Your task to perform on an android device: open app "TextNow: Call + Text Unlimited" (install if not already installed) Image 0: 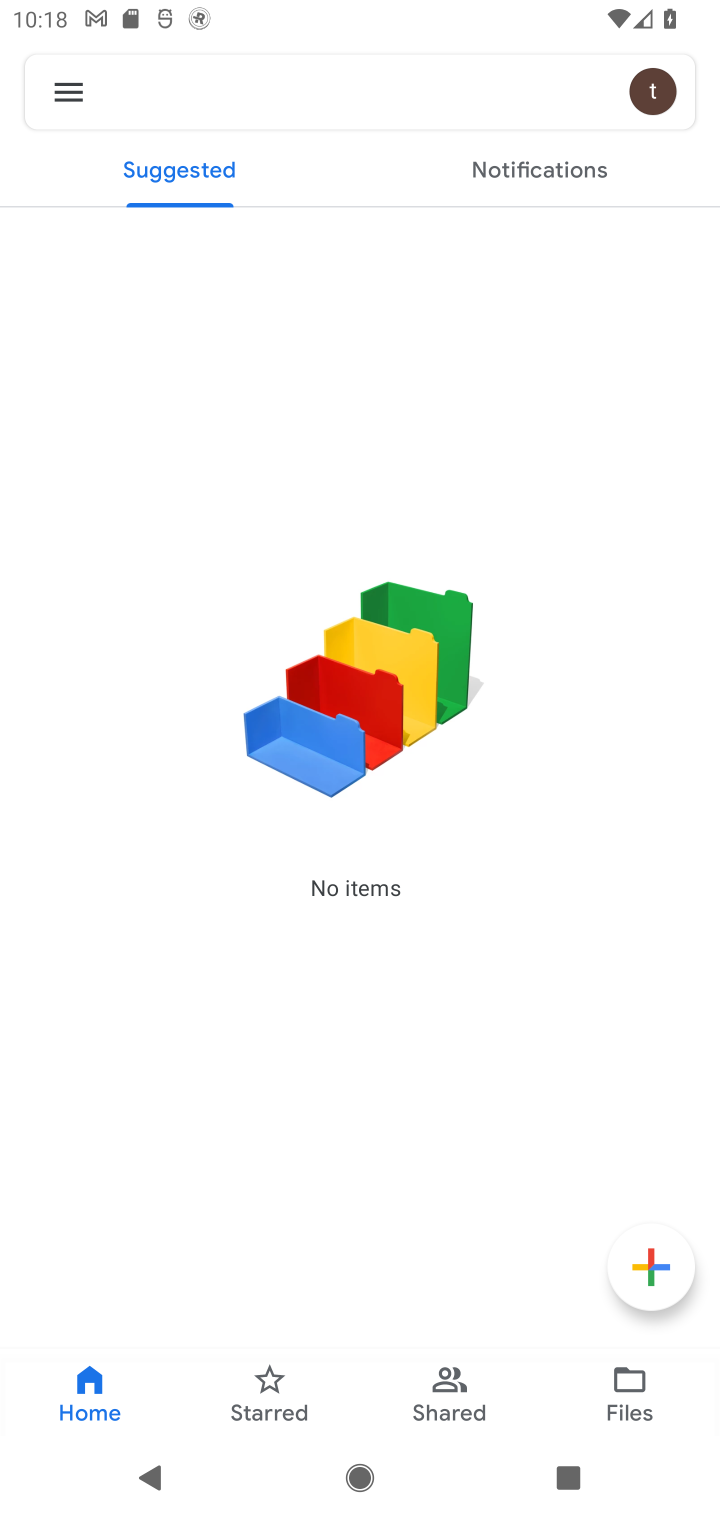
Step 0: press home button
Your task to perform on an android device: open app "TextNow: Call + Text Unlimited" (install if not already installed) Image 1: 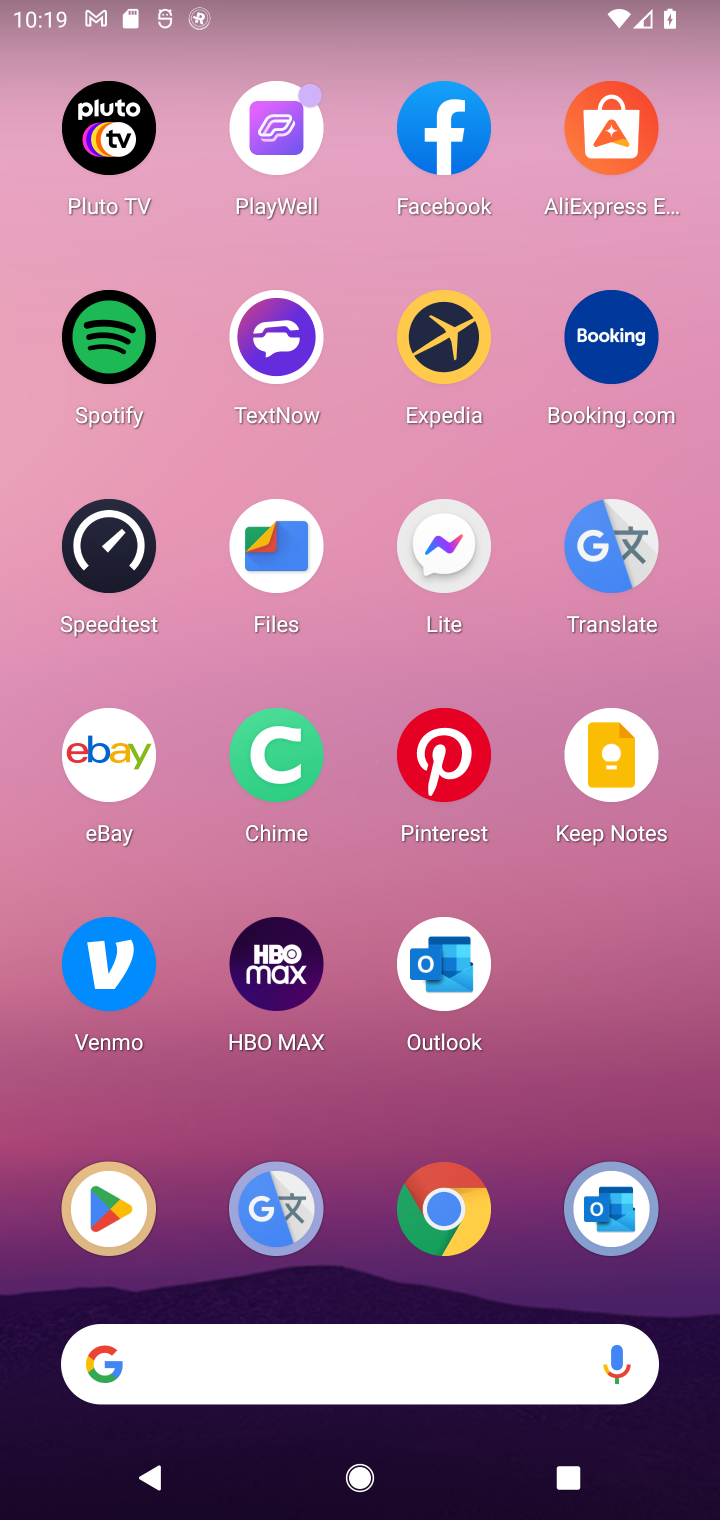
Step 1: press home button
Your task to perform on an android device: open app "TextNow: Call + Text Unlimited" (install if not already installed) Image 2: 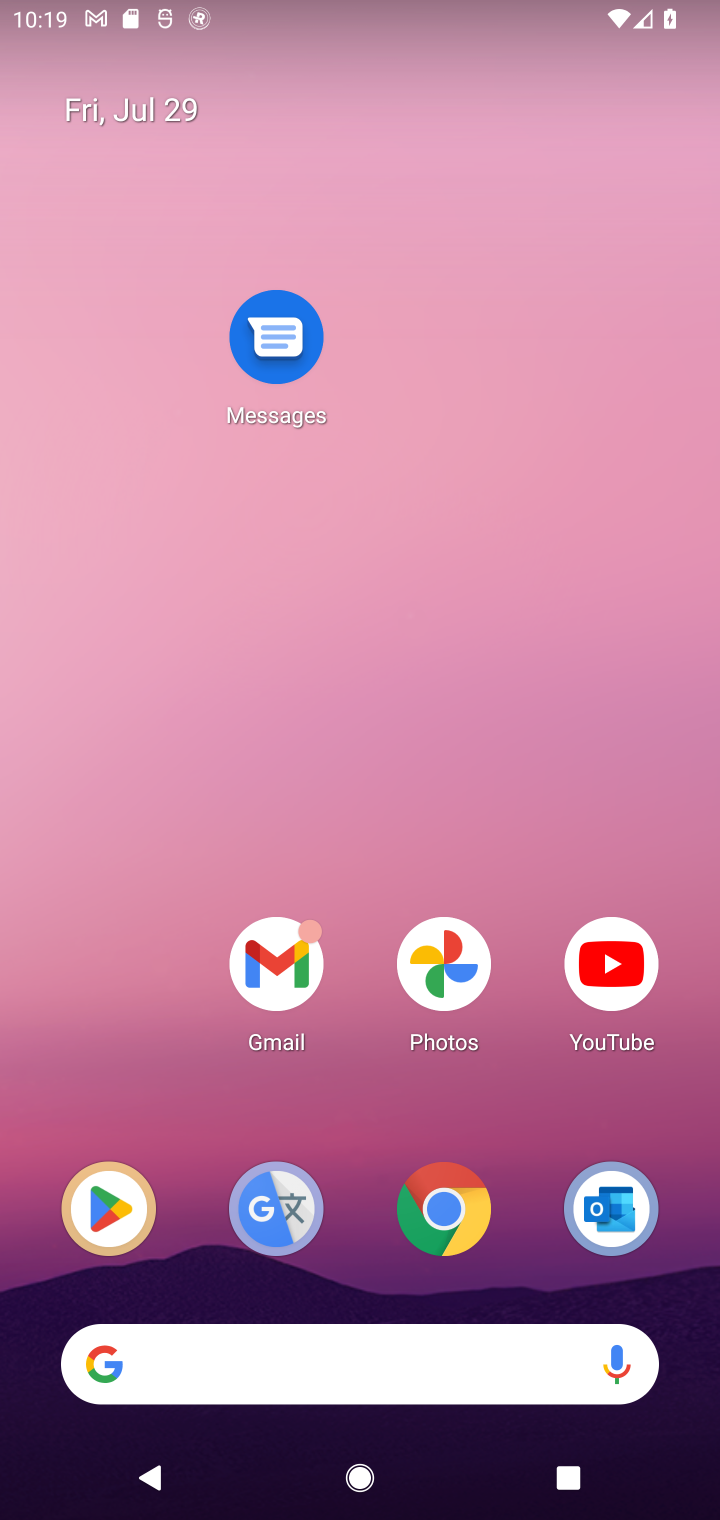
Step 2: drag from (326, 1384) to (585, 330)
Your task to perform on an android device: open app "TextNow: Call + Text Unlimited" (install if not already installed) Image 3: 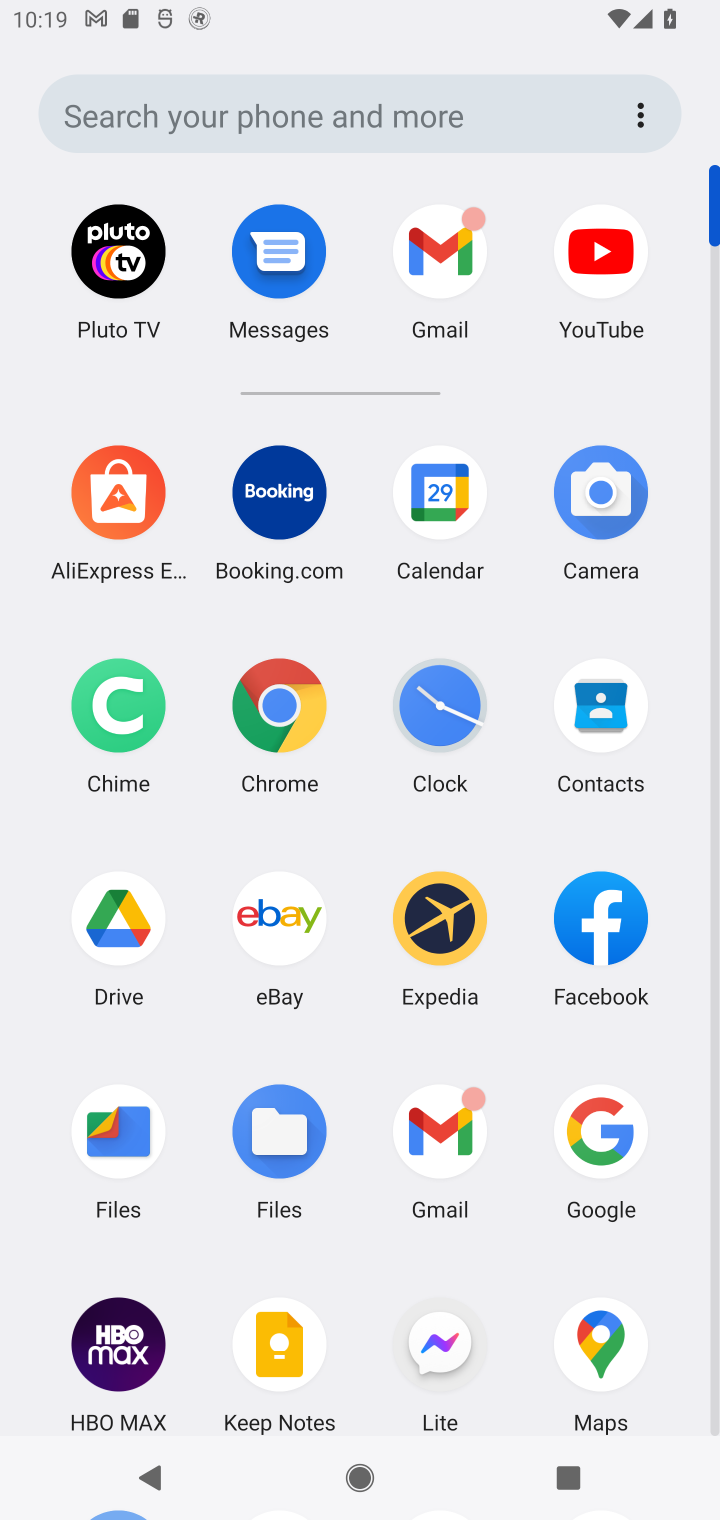
Step 3: drag from (327, 1158) to (382, 730)
Your task to perform on an android device: open app "TextNow: Call + Text Unlimited" (install if not already installed) Image 4: 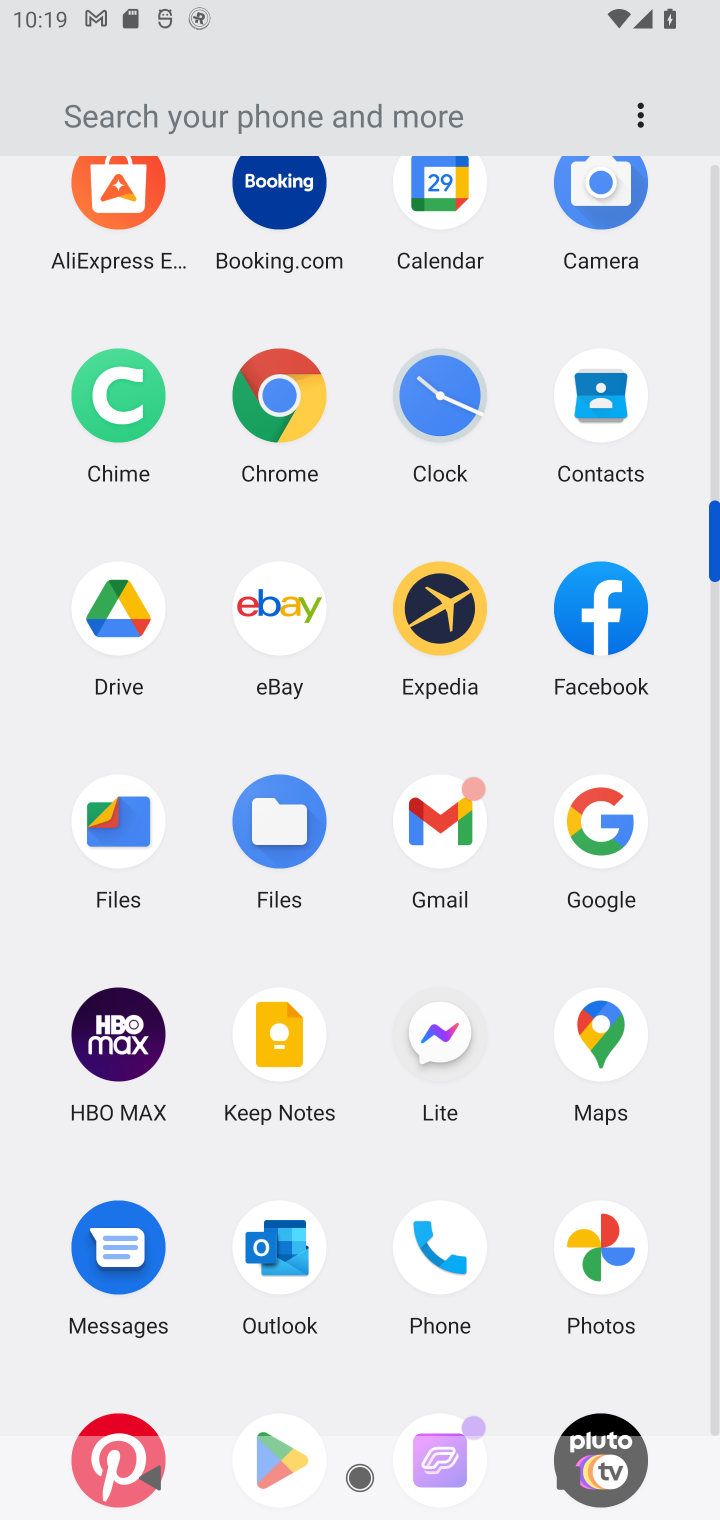
Step 4: drag from (504, 1244) to (541, 668)
Your task to perform on an android device: open app "TextNow: Call + Text Unlimited" (install if not already installed) Image 5: 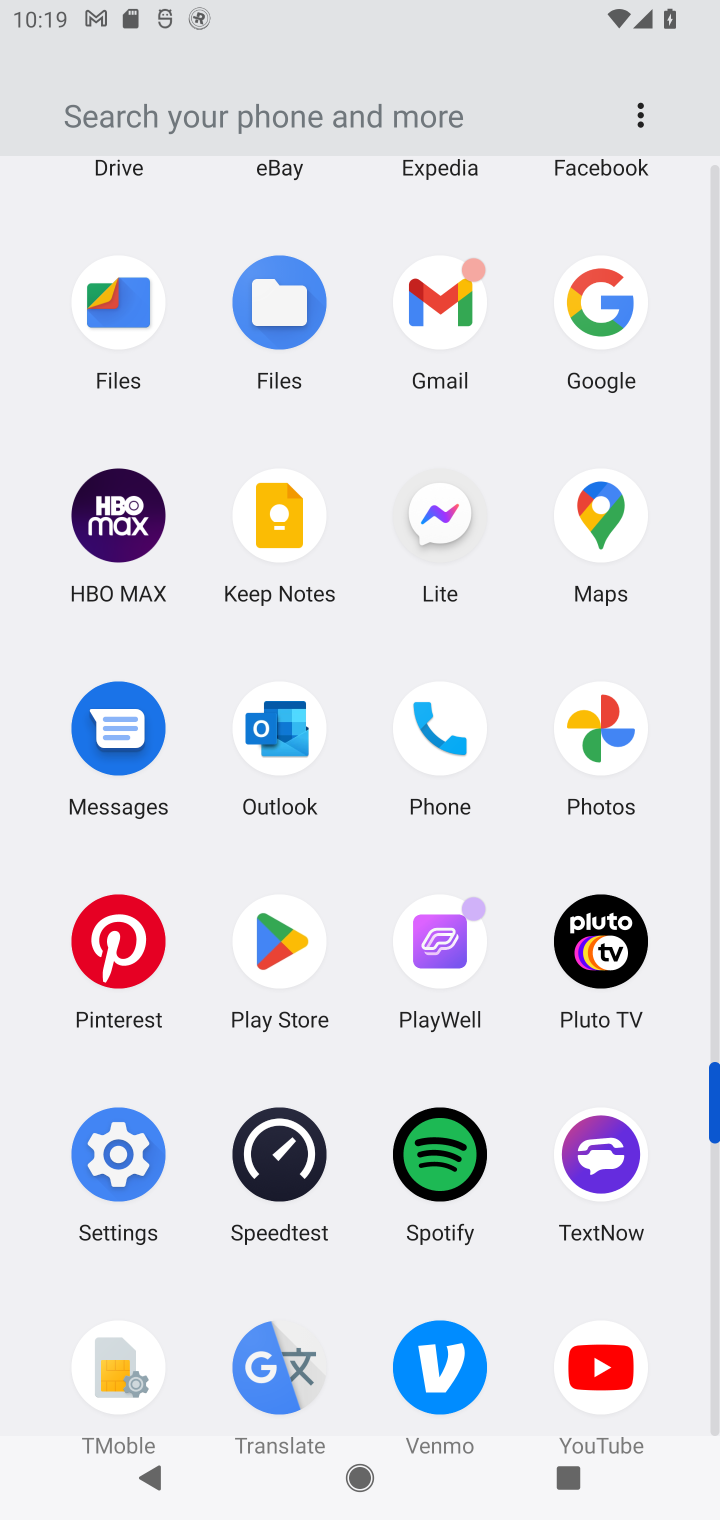
Step 5: click (284, 940)
Your task to perform on an android device: open app "TextNow: Call + Text Unlimited" (install if not already installed) Image 6: 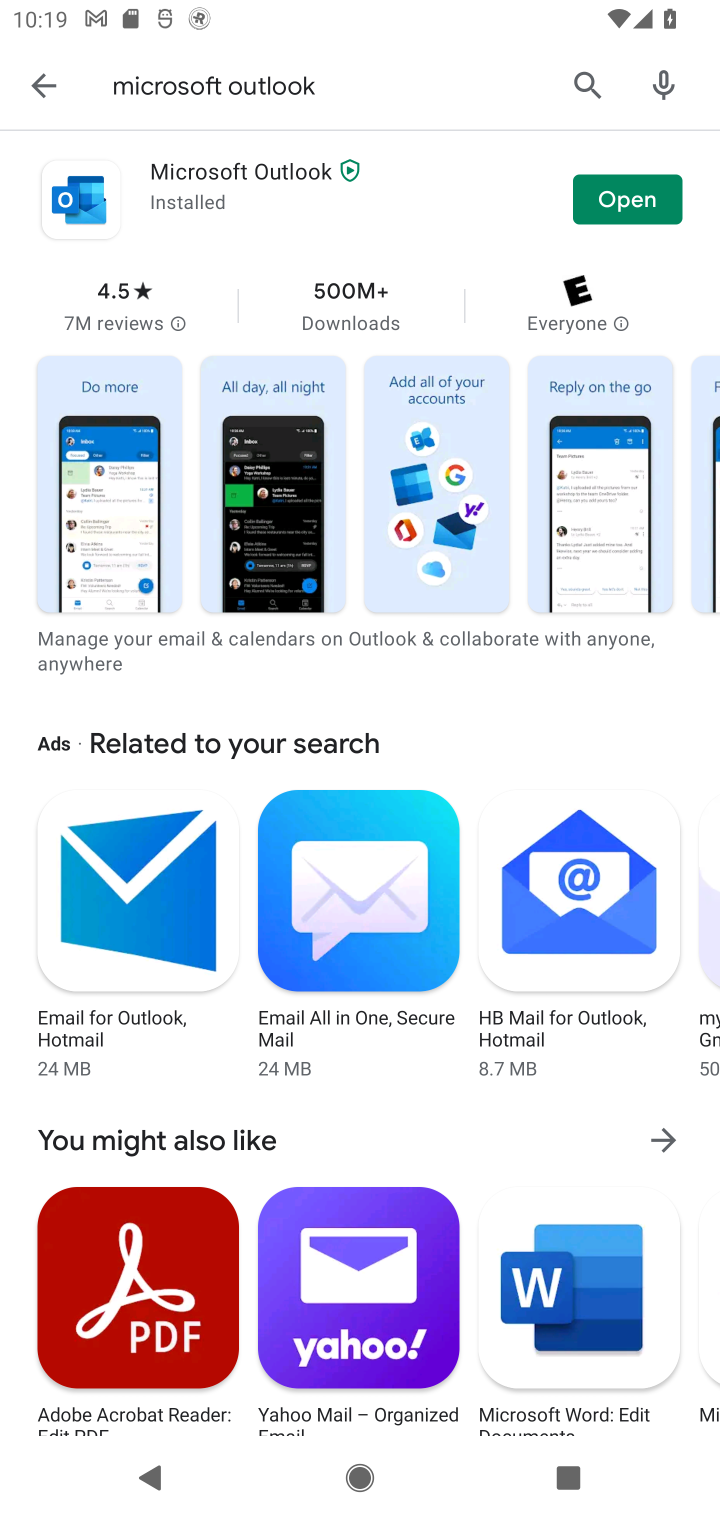
Step 6: click (506, 99)
Your task to perform on an android device: open app "TextNow: Call + Text Unlimited" (install if not already installed) Image 7: 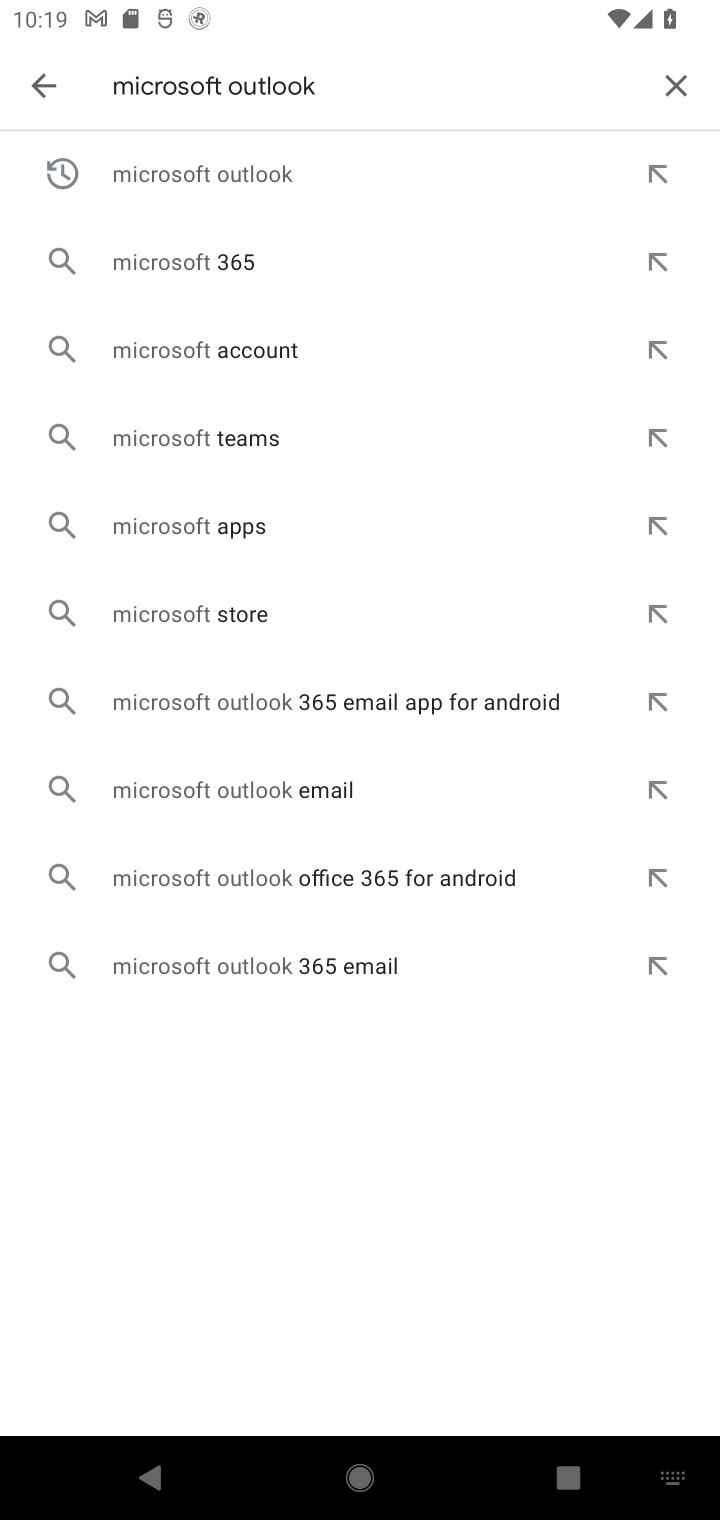
Step 7: click (674, 91)
Your task to perform on an android device: open app "TextNow: Call + Text Unlimited" (install if not already installed) Image 8: 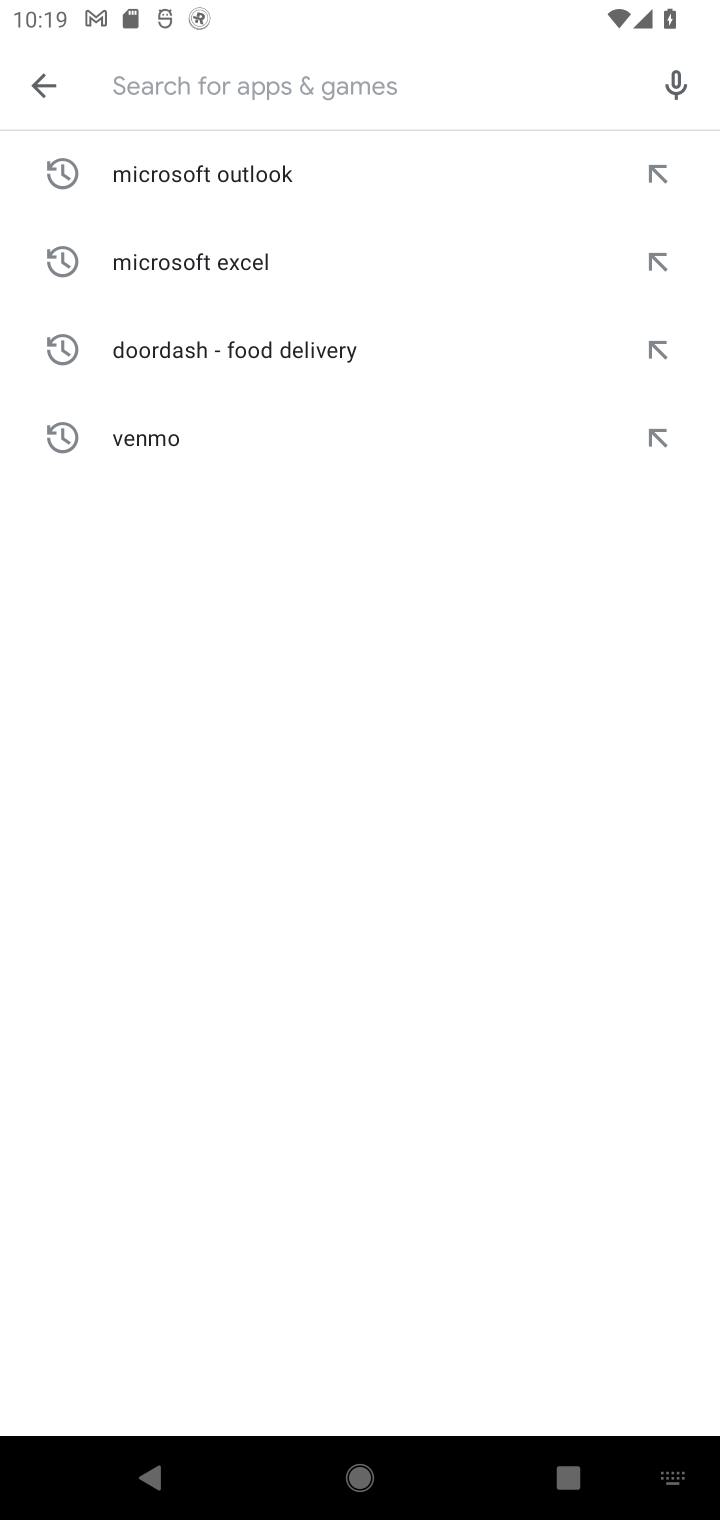
Step 8: click (335, 94)
Your task to perform on an android device: open app "TextNow: Call + Text Unlimited" (install if not already installed) Image 9: 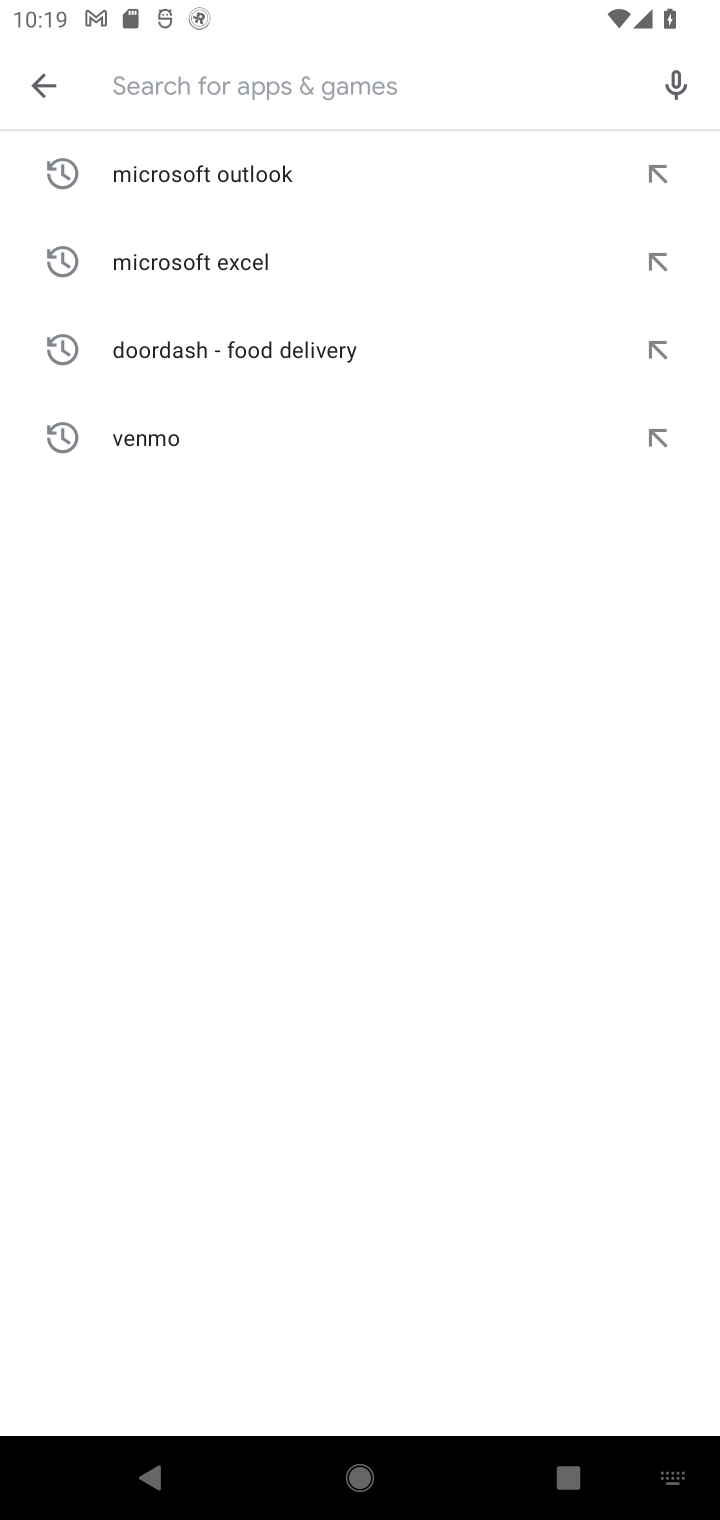
Step 9: type "TextNow: Call + Text Unlimited"
Your task to perform on an android device: open app "TextNow: Call + Text Unlimited" (install if not already installed) Image 10: 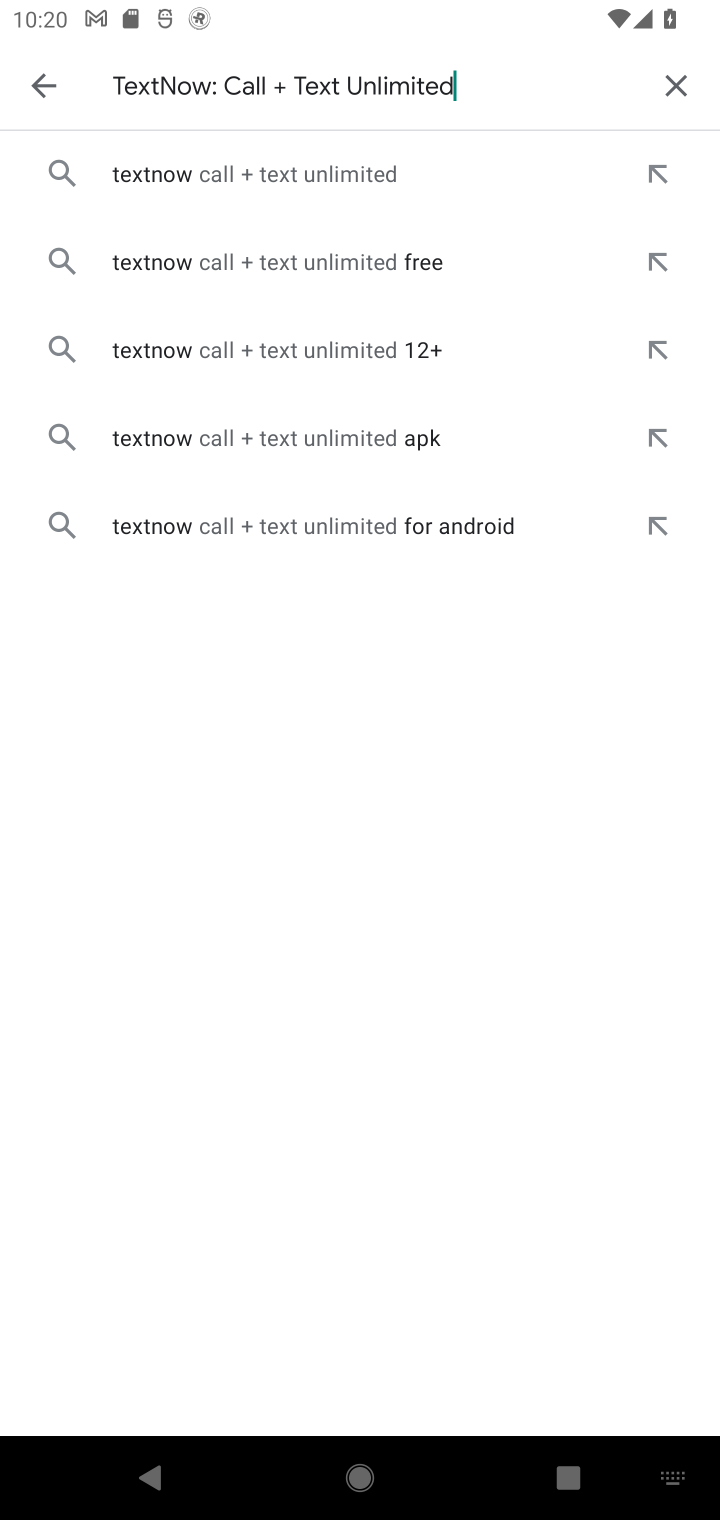
Step 10: click (314, 177)
Your task to perform on an android device: open app "TextNow: Call + Text Unlimited" (install if not already installed) Image 11: 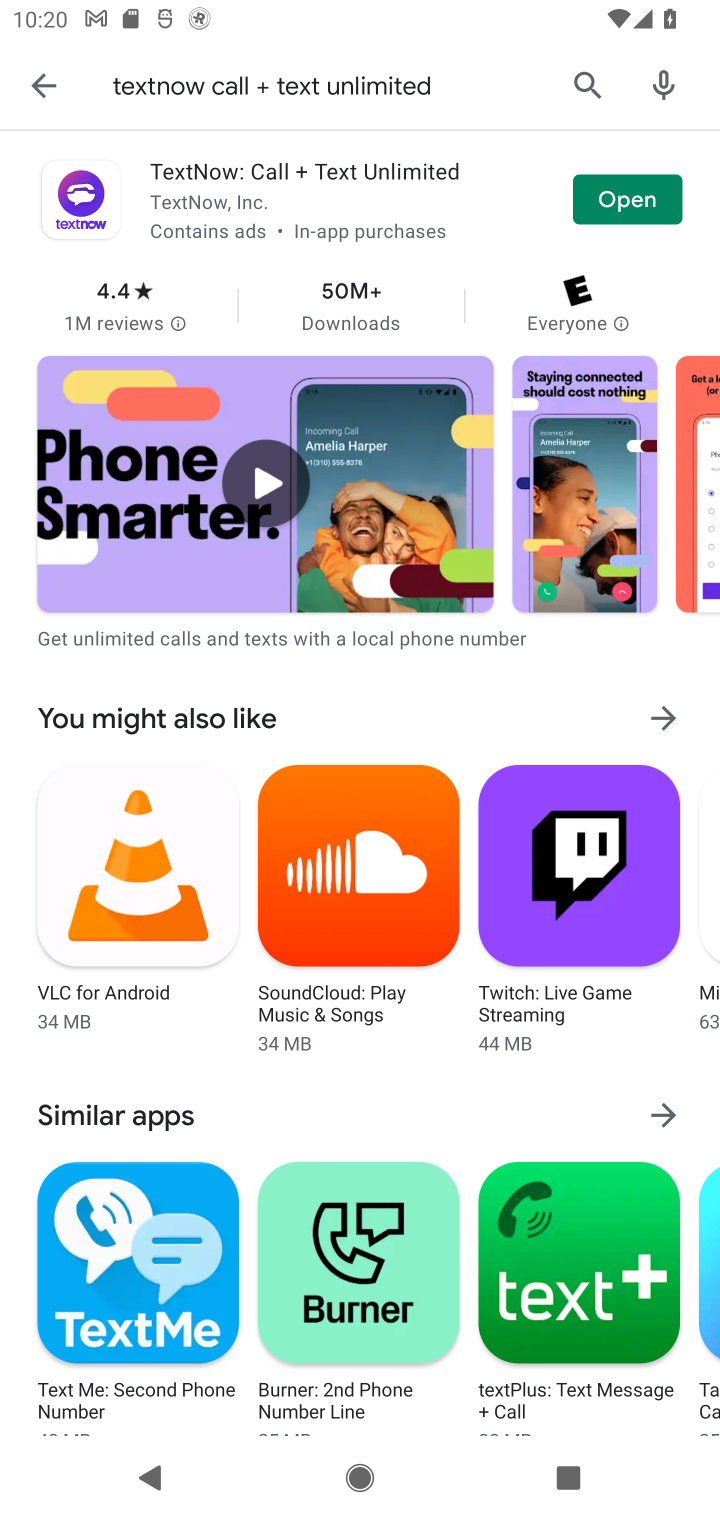
Step 11: click (627, 212)
Your task to perform on an android device: open app "TextNow: Call + Text Unlimited" (install if not already installed) Image 12: 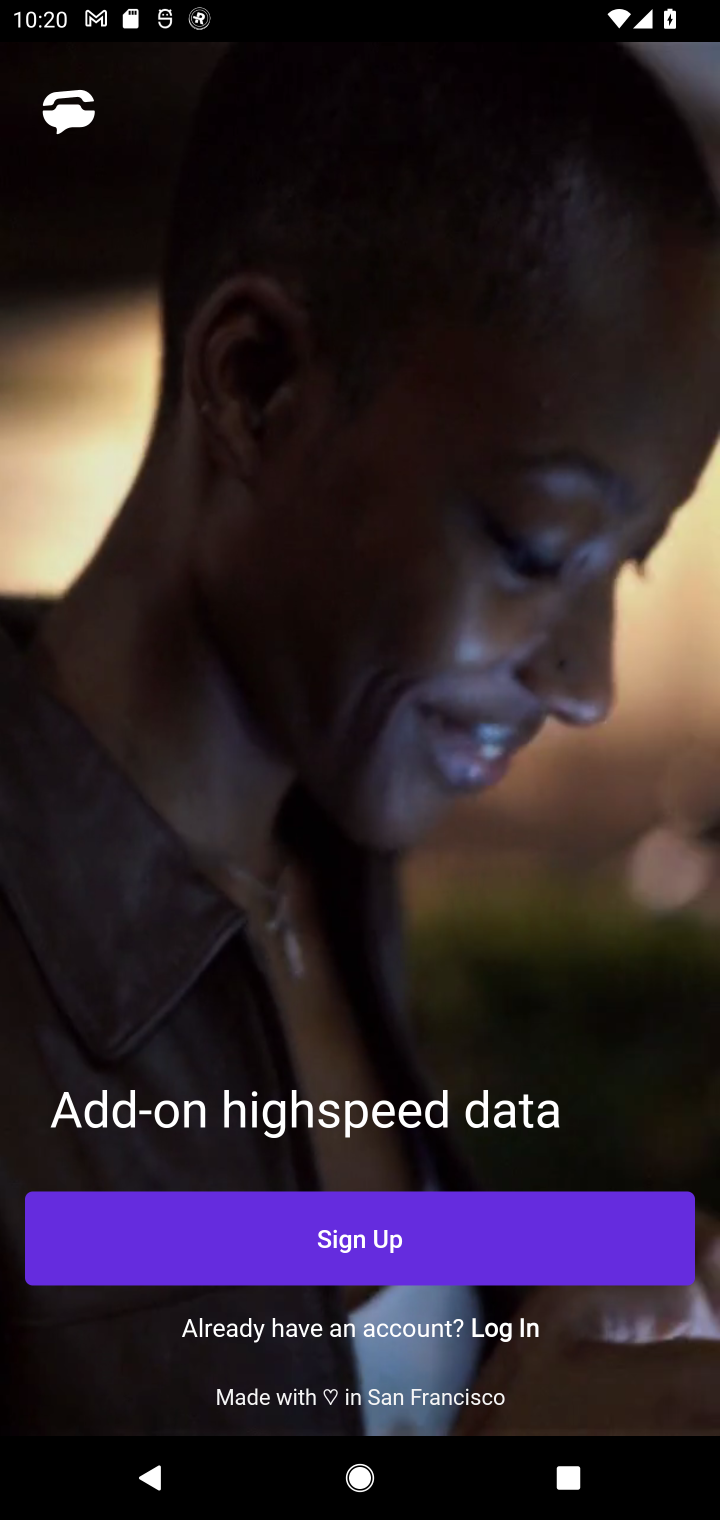
Step 12: task complete